Your task to perform on an android device: toggle improve location accuracy Image 0: 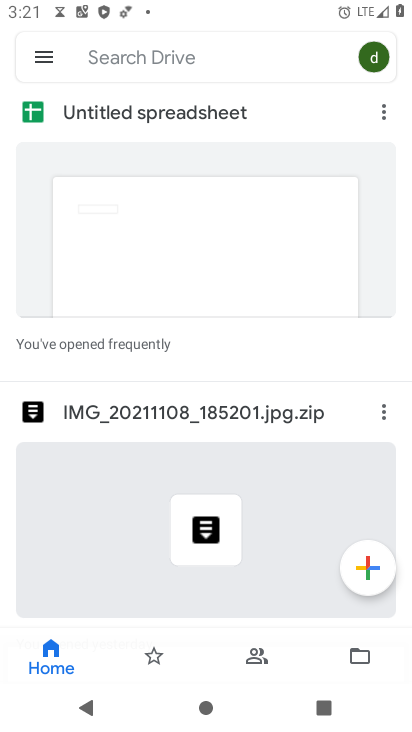
Step 0: press home button
Your task to perform on an android device: toggle improve location accuracy Image 1: 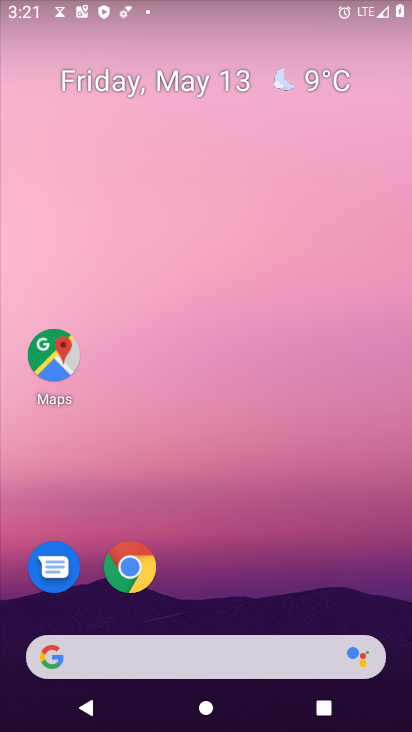
Step 1: drag from (265, 555) to (288, 13)
Your task to perform on an android device: toggle improve location accuracy Image 2: 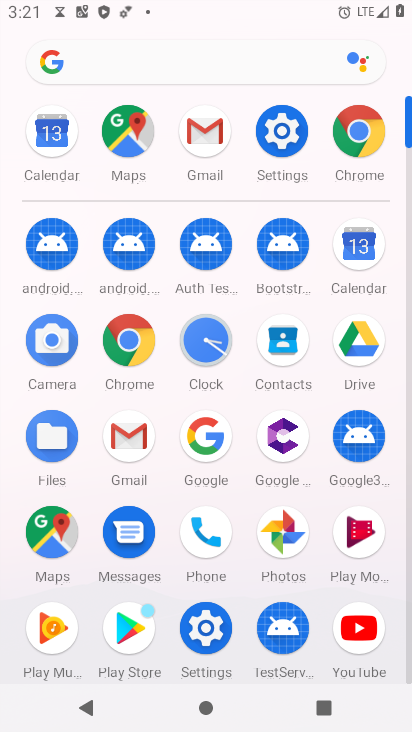
Step 2: click (282, 127)
Your task to perform on an android device: toggle improve location accuracy Image 3: 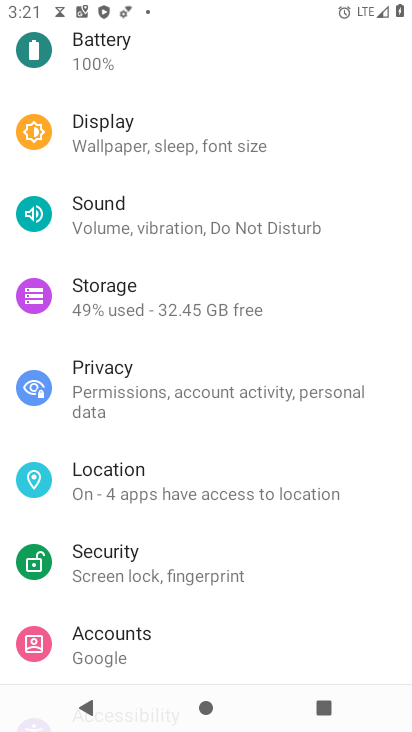
Step 3: click (114, 496)
Your task to perform on an android device: toggle improve location accuracy Image 4: 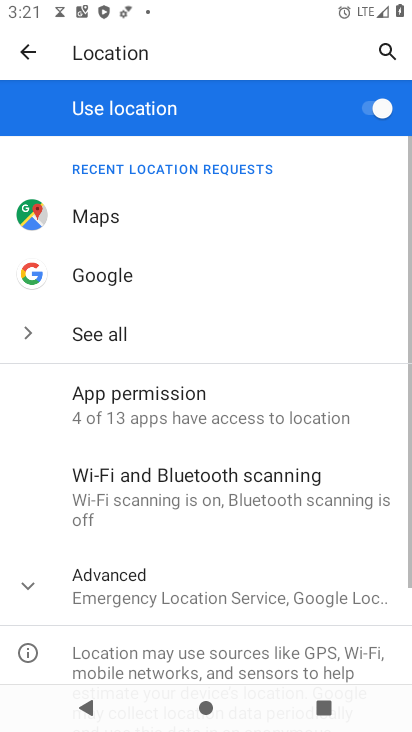
Step 4: click (31, 589)
Your task to perform on an android device: toggle improve location accuracy Image 5: 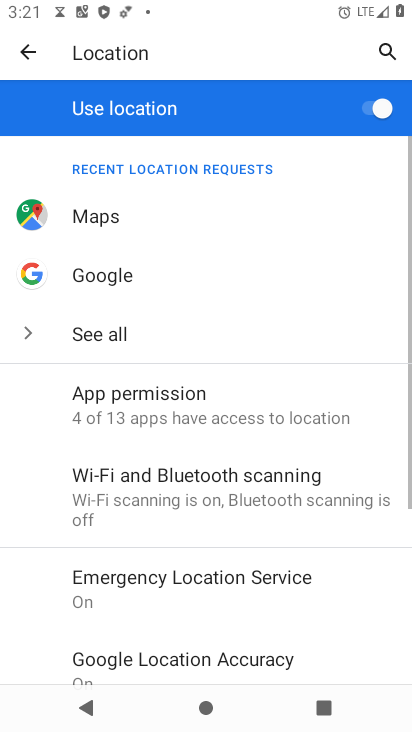
Step 5: drag from (144, 599) to (145, 334)
Your task to perform on an android device: toggle improve location accuracy Image 6: 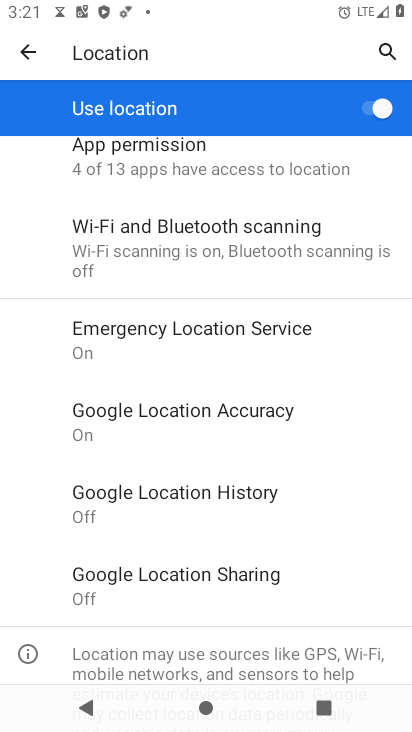
Step 6: click (125, 419)
Your task to perform on an android device: toggle improve location accuracy Image 7: 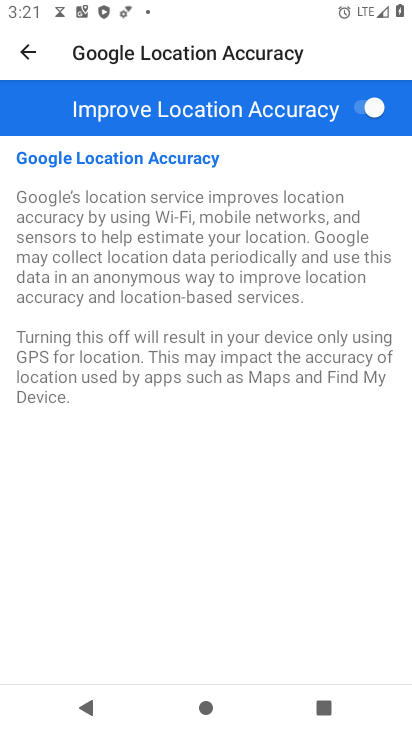
Step 7: click (371, 116)
Your task to perform on an android device: toggle improve location accuracy Image 8: 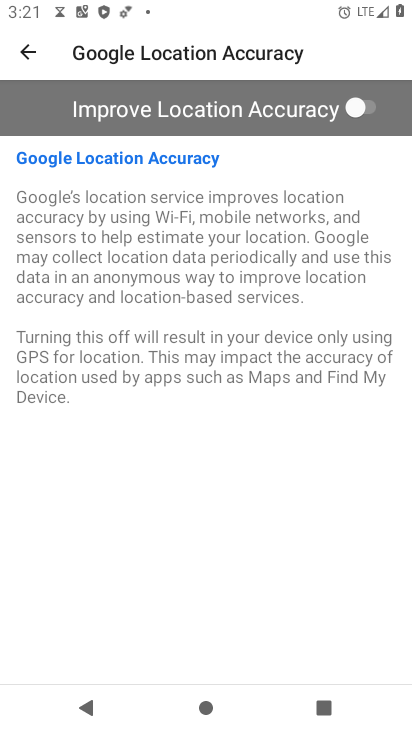
Step 8: task complete